Your task to perform on an android device: change keyboard looks Image 0: 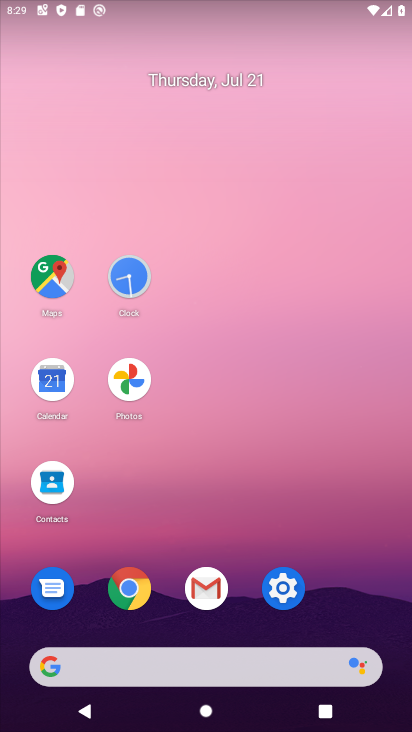
Step 0: click (279, 585)
Your task to perform on an android device: change keyboard looks Image 1: 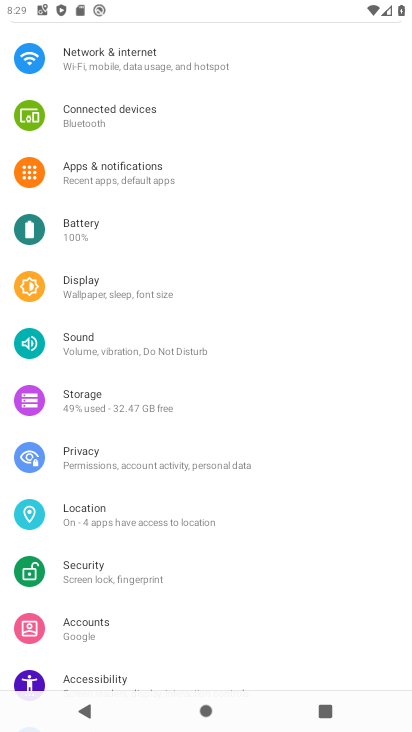
Step 1: drag from (232, 589) to (233, 217)
Your task to perform on an android device: change keyboard looks Image 2: 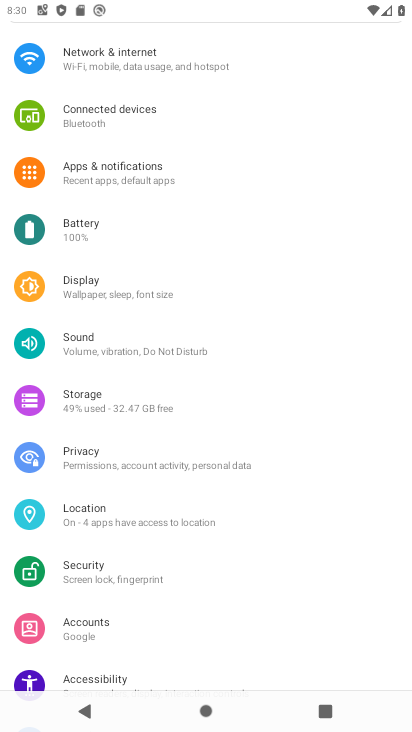
Step 2: drag from (267, 585) to (298, 173)
Your task to perform on an android device: change keyboard looks Image 3: 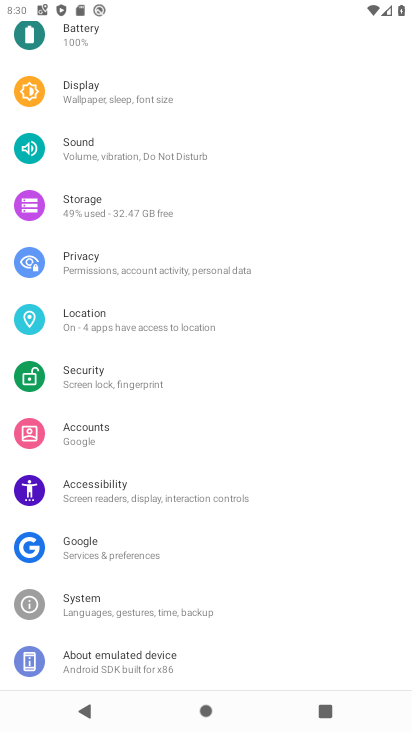
Step 3: click (83, 592)
Your task to perform on an android device: change keyboard looks Image 4: 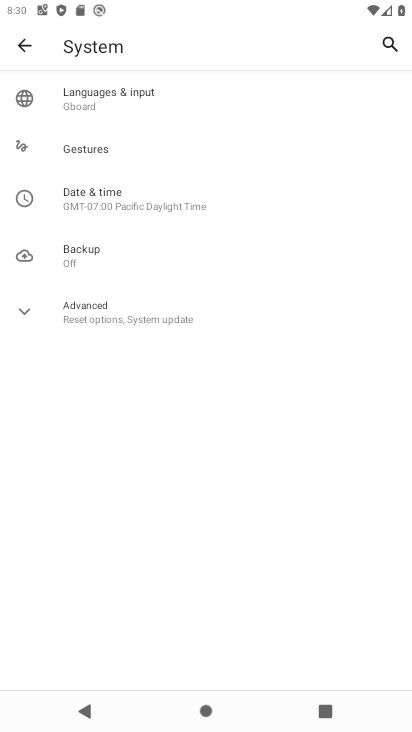
Step 4: click (87, 93)
Your task to perform on an android device: change keyboard looks Image 5: 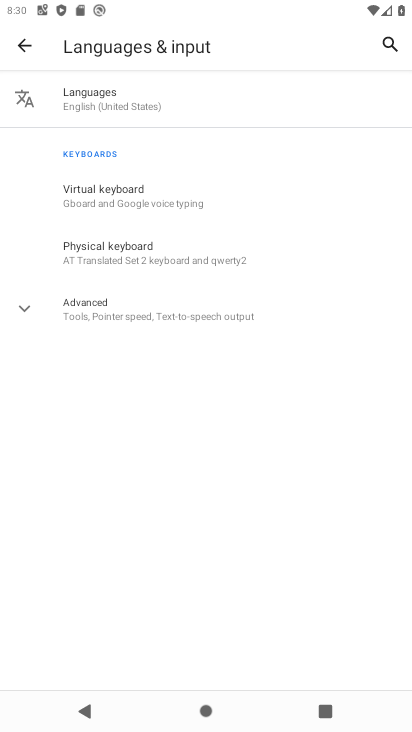
Step 5: click (85, 189)
Your task to perform on an android device: change keyboard looks Image 6: 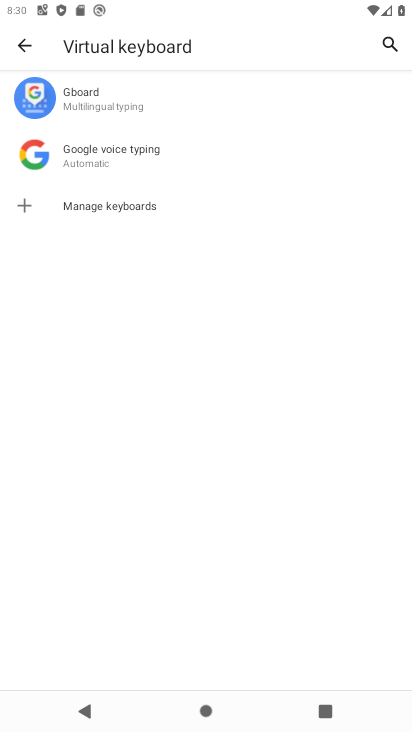
Step 6: click (72, 93)
Your task to perform on an android device: change keyboard looks Image 7: 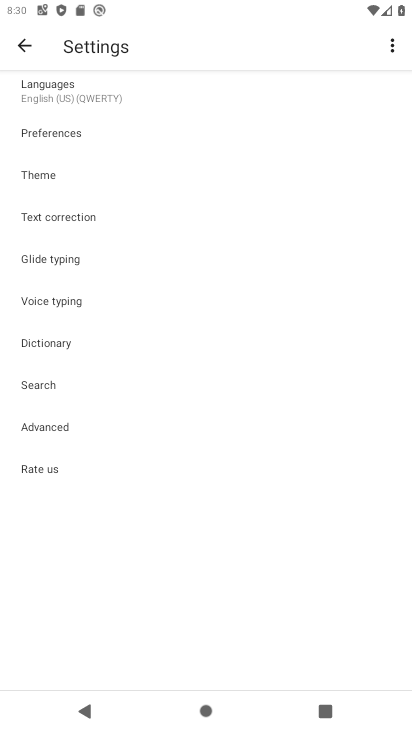
Step 7: click (45, 170)
Your task to perform on an android device: change keyboard looks Image 8: 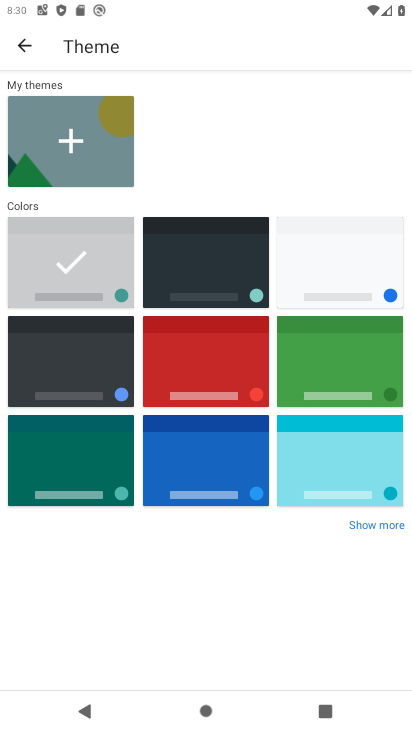
Step 8: click (213, 254)
Your task to perform on an android device: change keyboard looks Image 9: 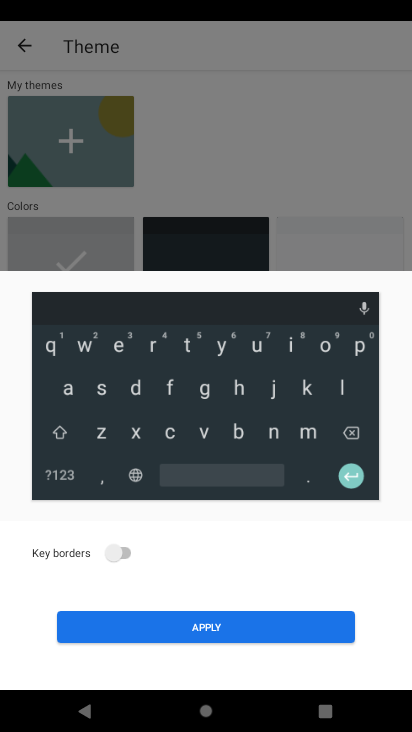
Step 9: click (204, 626)
Your task to perform on an android device: change keyboard looks Image 10: 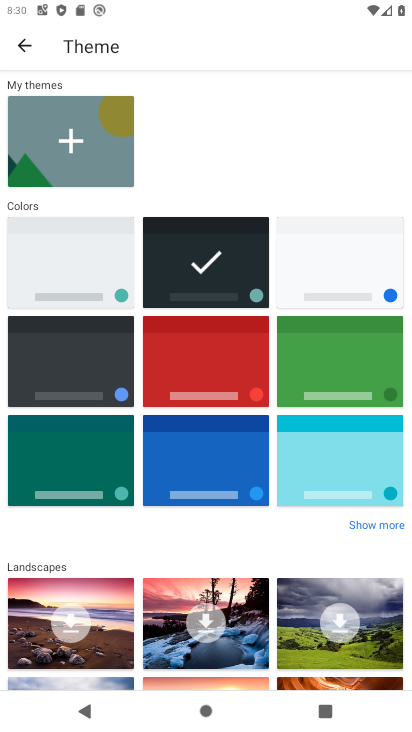
Step 10: task complete